Your task to perform on an android device: choose inbox layout in the gmail app Image 0: 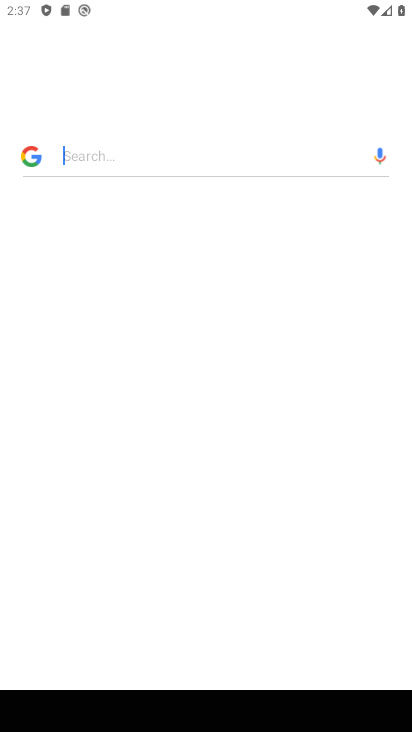
Step 0: drag from (373, 540) to (377, 96)
Your task to perform on an android device: choose inbox layout in the gmail app Image 1: 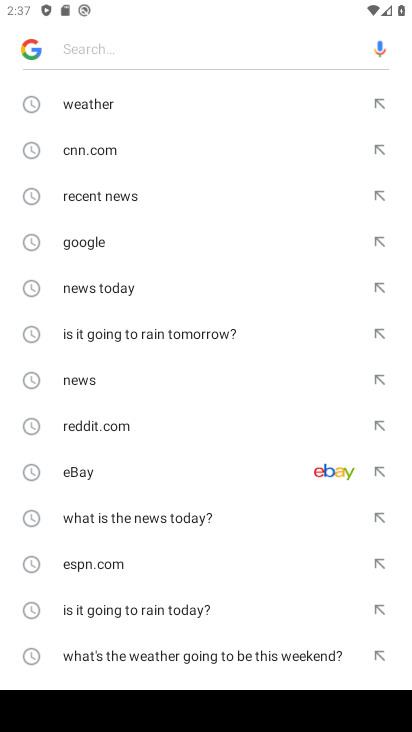
Step 1: press home button
Your task to perform on an android device: choose inbox layout in the gmail app Image 2: 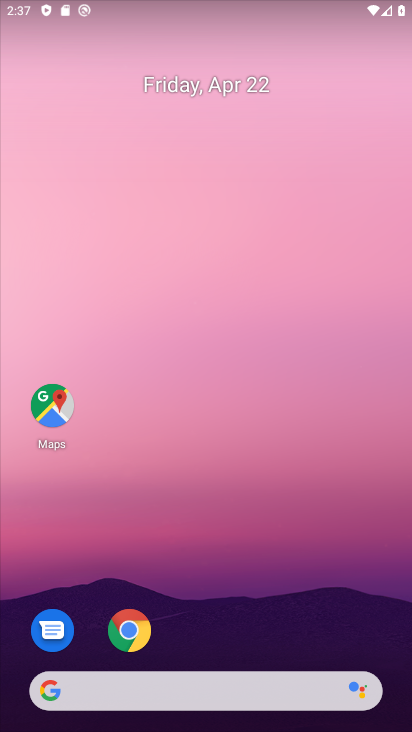
Step 2: drag from (320, 567) to (330, 156)
Your task to perform on an android device: choose inbox layout in the gmail app Image 3: 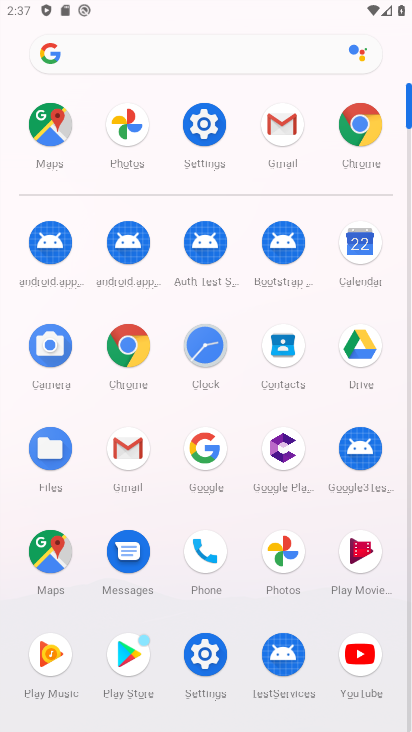
Step 3: click (125, 456)
Your task to perform on an android device: choose inbox layout in the gmail app Image 4: 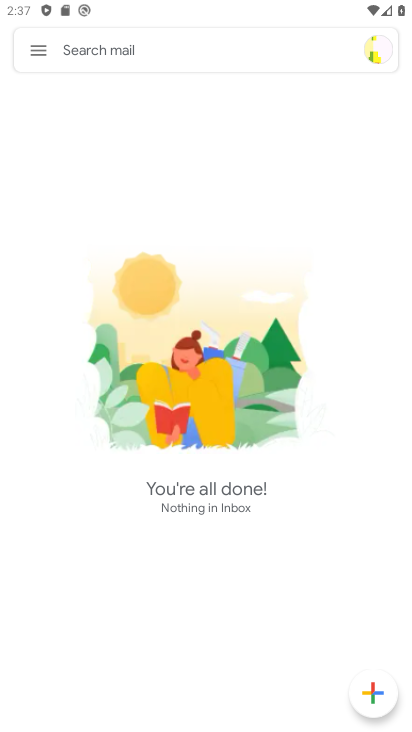
Step 4: click (30, 51)
Your task to perform on an android device: choose inbox layout in the gmail app Image 5: 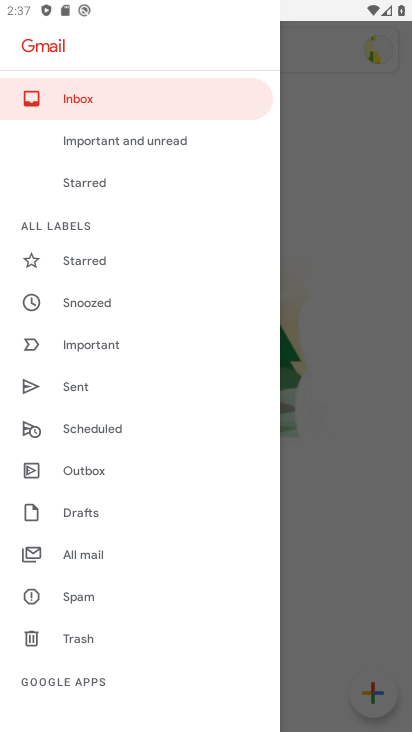
Step 5: drag from (135, 686) to (201, 370)
Your task to perform on an android device: choose inbox layout in the gmail app Image 6: 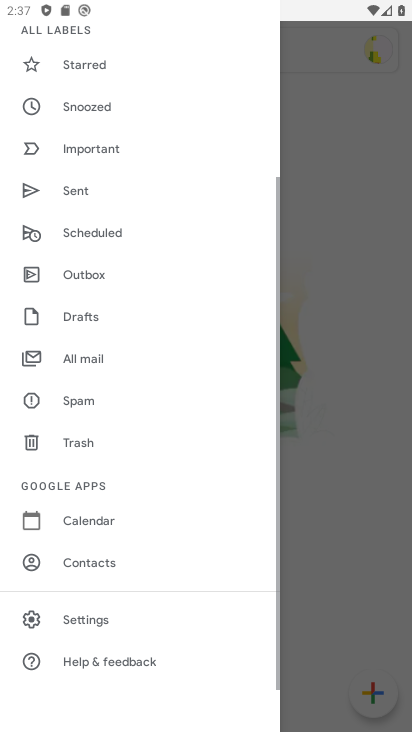
Step 6: click (88, 624)
Your task to perform on an android device: choose inbox layout in the gmail app Image 7: 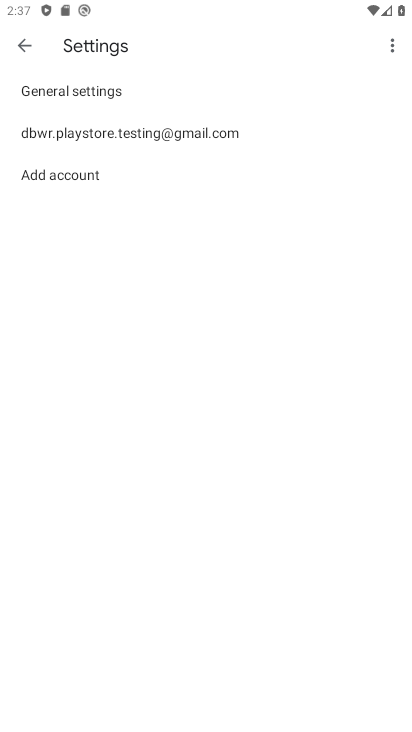
Step 7: click (96, 130)
Your task to perform on an android device: choose inbox layout in the gmail app Image 8: 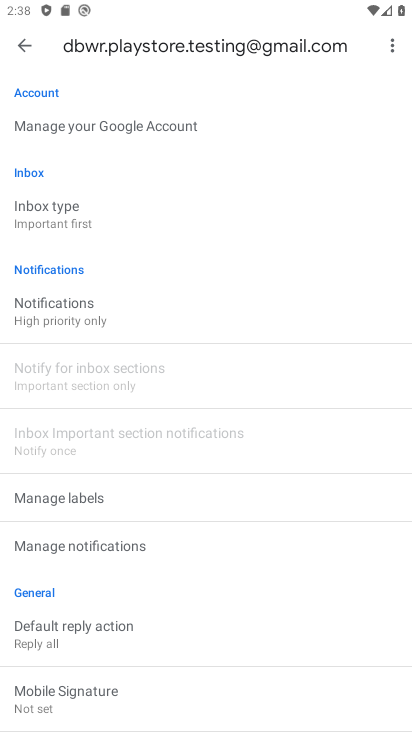
Step 8: click (87, 212)
Your task to perform on an android device: choose inbox layout in the gmail app Image 9: 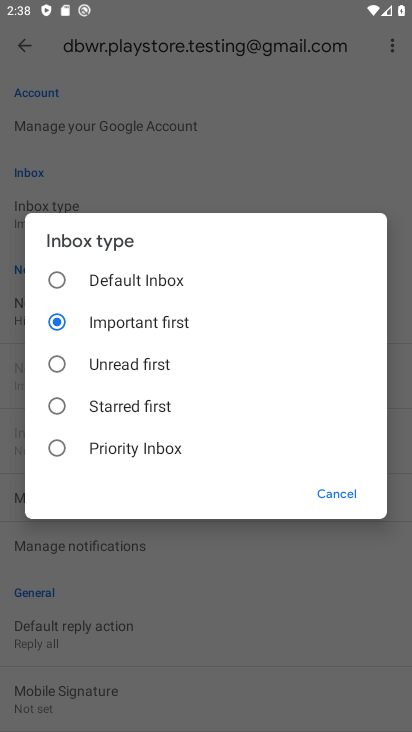
Step 9: click (97, 414)
Your task to perform on an android device: choose inbox layout in the gmail app Image 10: 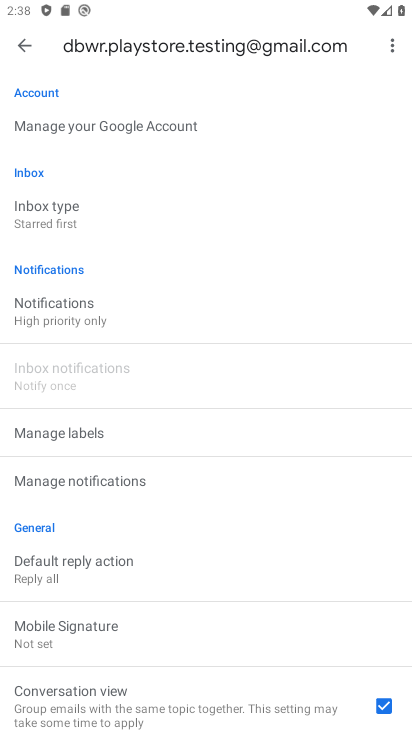
Step 10: task complete